Your task to perform on an android device: Open the phone app and click the voicemail tab. Image 0: 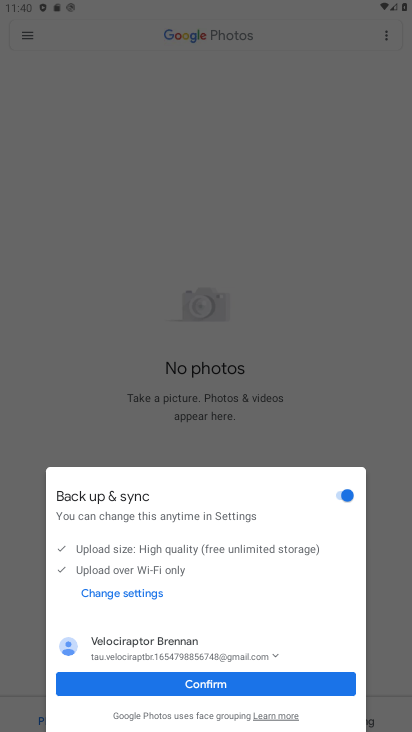
Step 0: press home button
Your task to perform on an android device: Open the phone app and click the voicemail tab. Image 1: 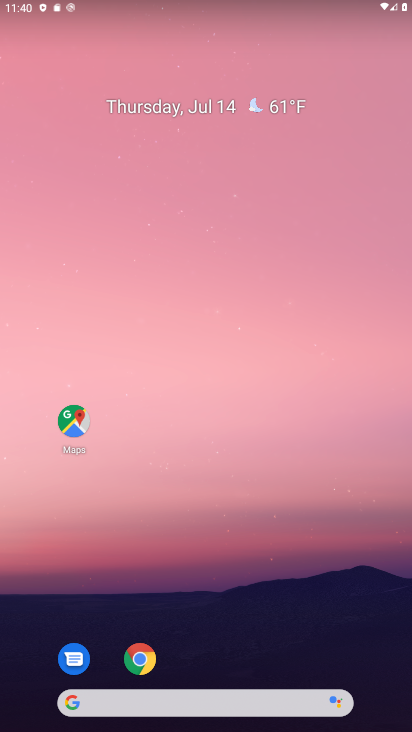
Step 1: drag from (179, 709) to (129, 279)
Your task to perform on an android device: Open the phone app and click the voicemail tab. Image 2: 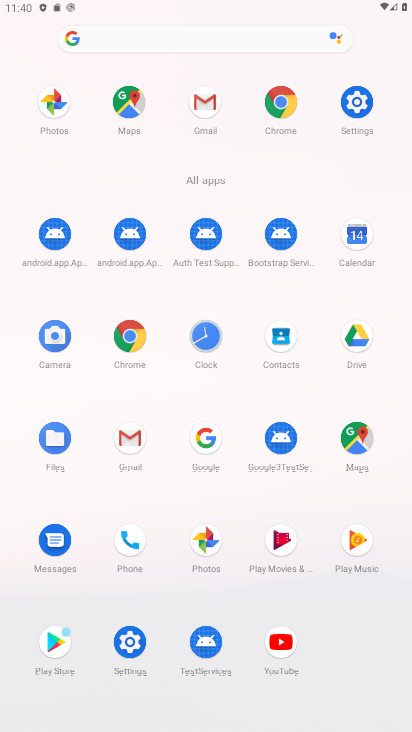
Step 2: click (126, 542)
Your task to perform on an android device: Open the phone app and click the voicemail tab. Image 3: 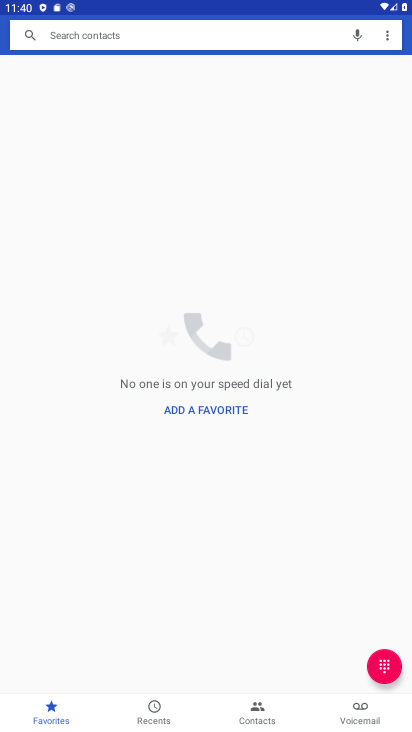
Step 3: click (361, 708)
Your task to perform on an android device: Open the phone app and click the voicemail tab. Image 4: 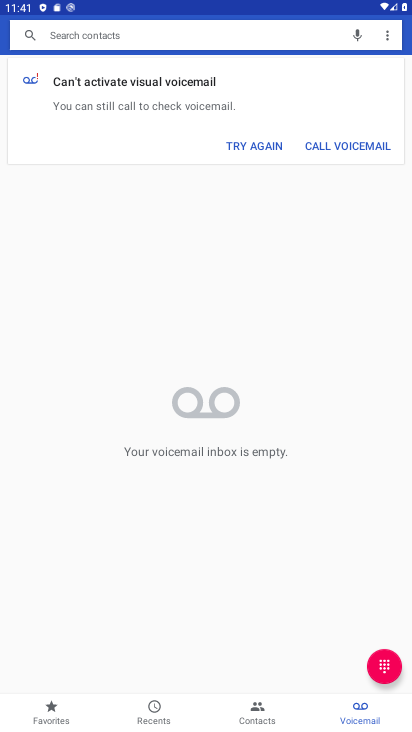
Step 4: task complete